Your task to perform on an android device: When is my next meeting? Image 0: 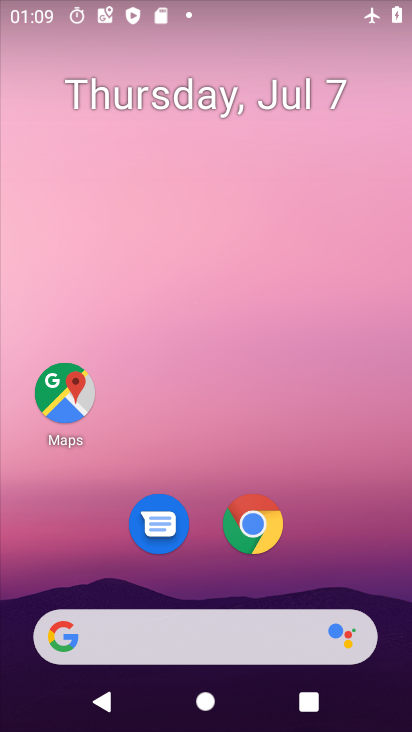
Step 0: drag from (177, 449) to (212, 6)
Your task to perform on an android device: When is my next meeting? Image 1: 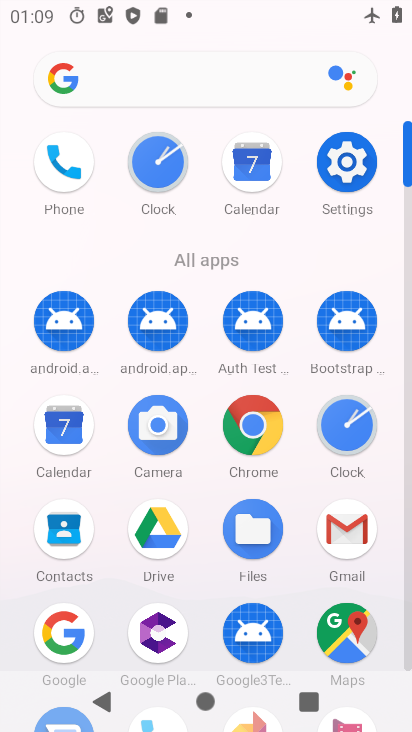
Step 1: click (60, 435)
Your task to perform on an android device: When is my next meeting? Image 2: 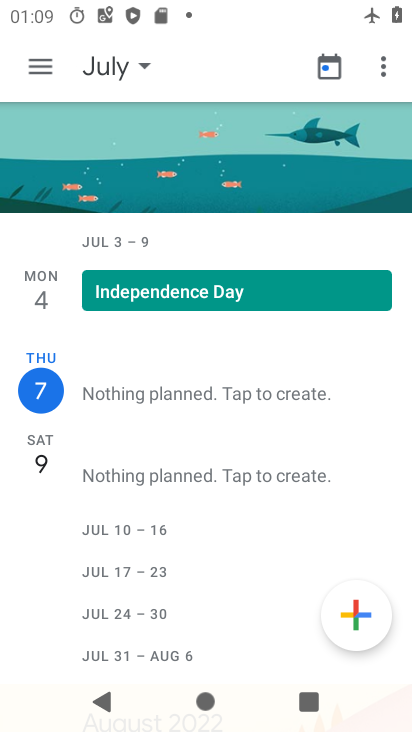
Step 2: click (42, 386)
Your task to perform on an android device: When is my next meeting? Image 3: 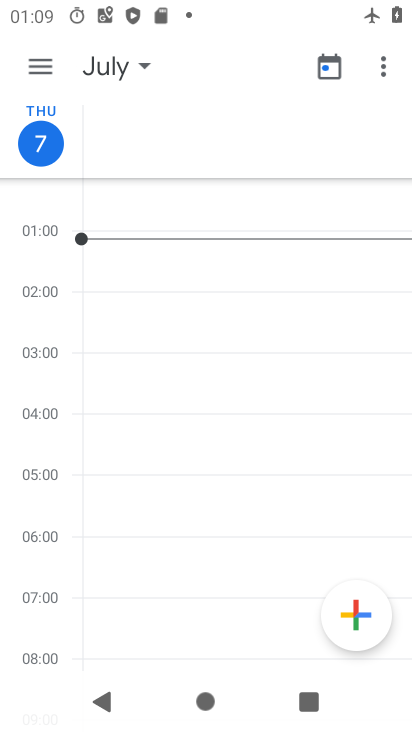
Step 3: task complete